Your task to perform on an android device: See recent photos Image 0: 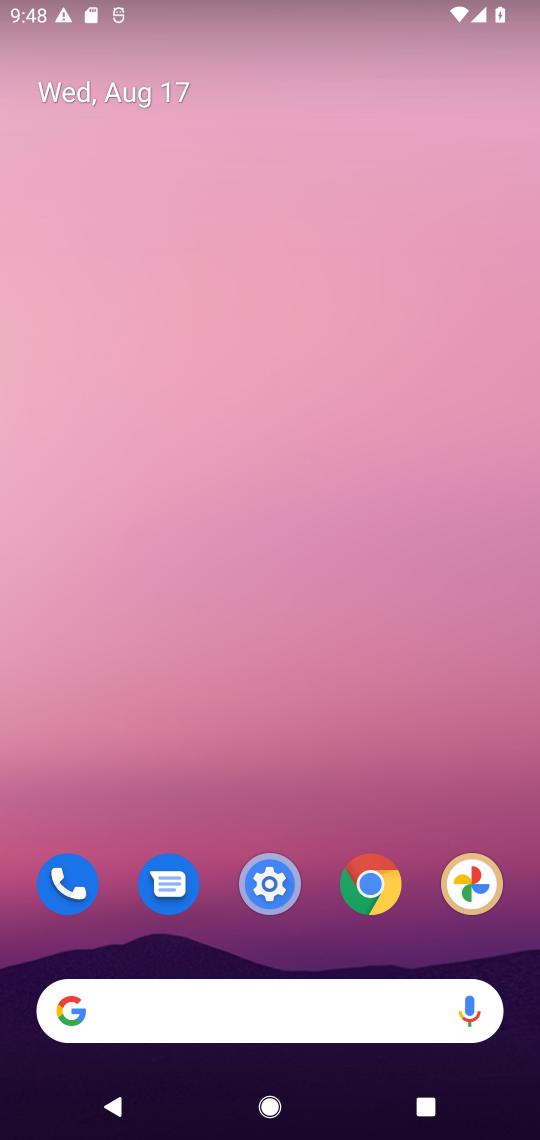
Step 0: click (458, 900)
Your task to perform on an android device: See recent photos Image 1: 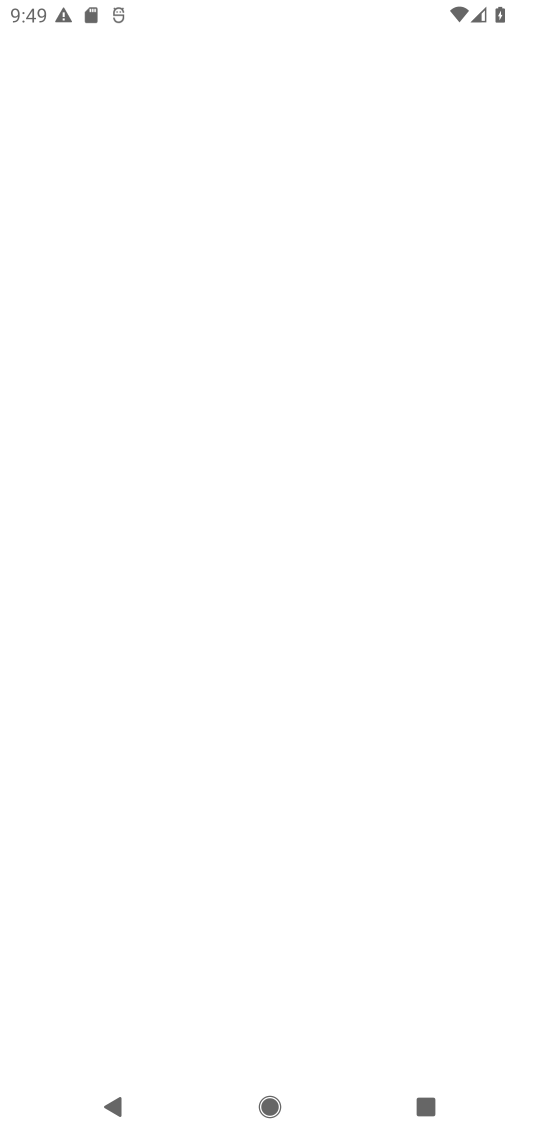
Step 1: press home button
Your task to perform on an android device: See recent photos Image 2: 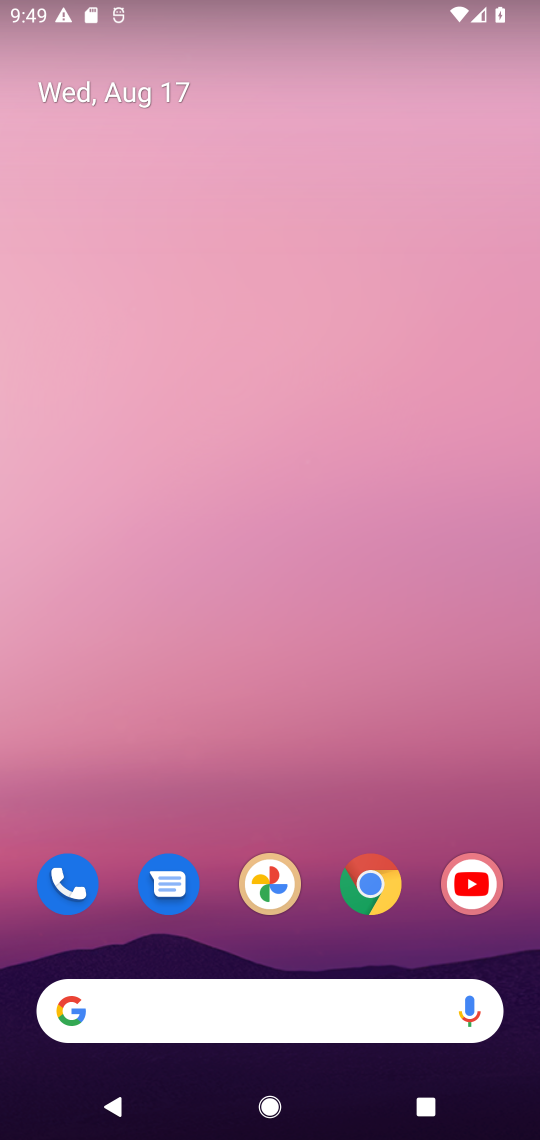
Step 2: click (275, 881)
Your task to perform on an android device: See recent photos Image 3: 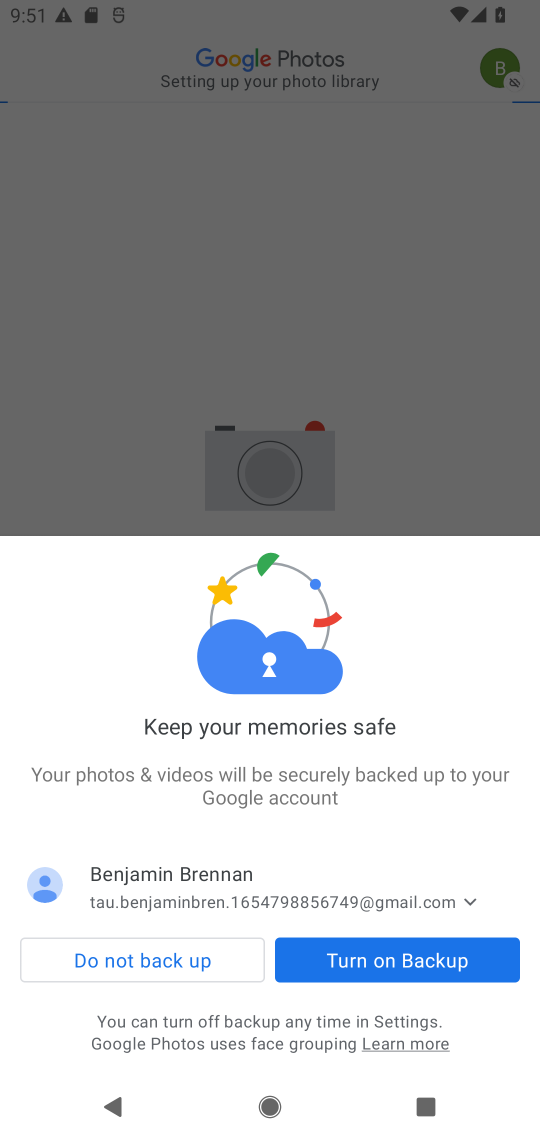
Step 3: click (368, 915)
Your task to perform on an android device: See recent photos Image 4: 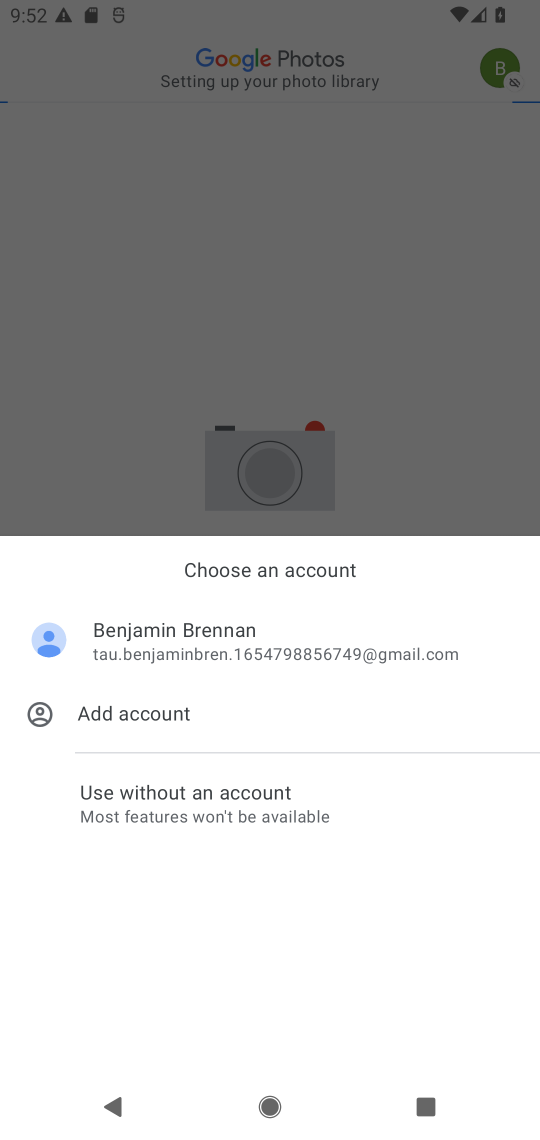
Step 4: task complete